Your task to perform on an android device: turn notification dots off Image 0: 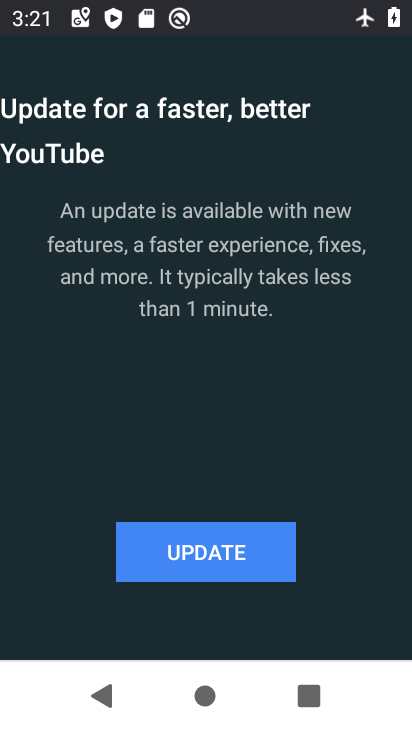
Step 0: press back button
Your task to perform on an android device: turn notification dots off Image 1: 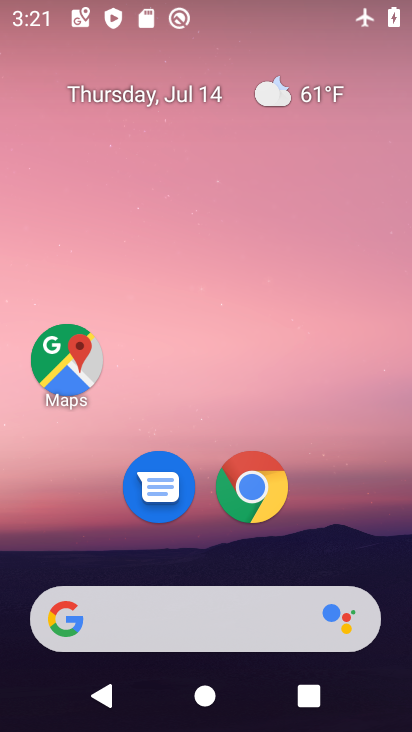
Step 1: drag from (220, 528) to (230, 36)
Your task to perform on an android device: turn notification dots off Image 2: 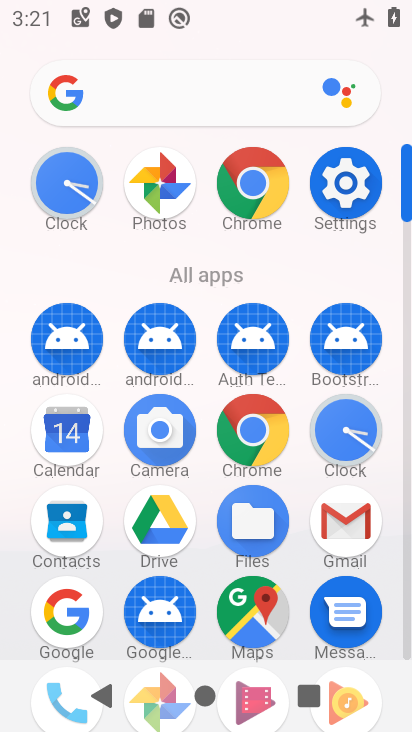
Step 2: click (349, 183)
Your task to perform on an android device: turn notification dots off Image 3: 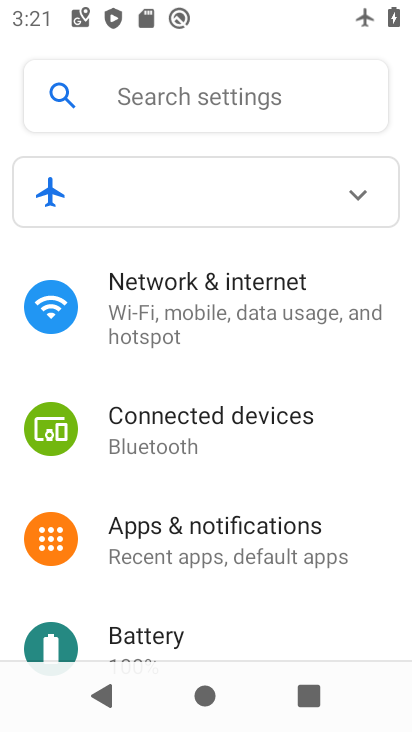
Step 3: click (172, 559)
Your task to perform on an android device: turn notification dots off Image 4: 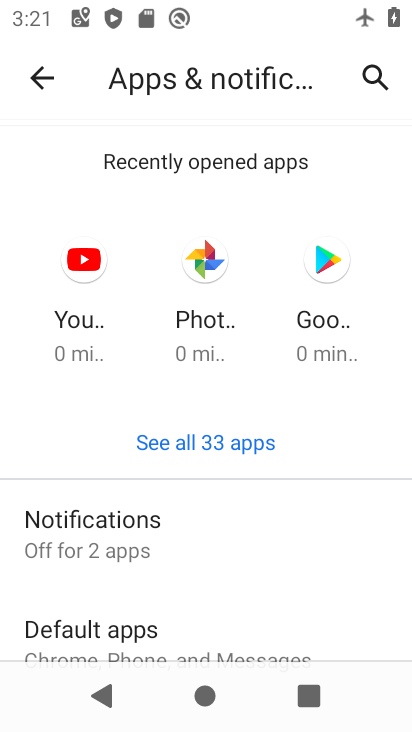
Step 4: click (141, 525)
Your task to perform on an android device: turn notification dots off Image 5: 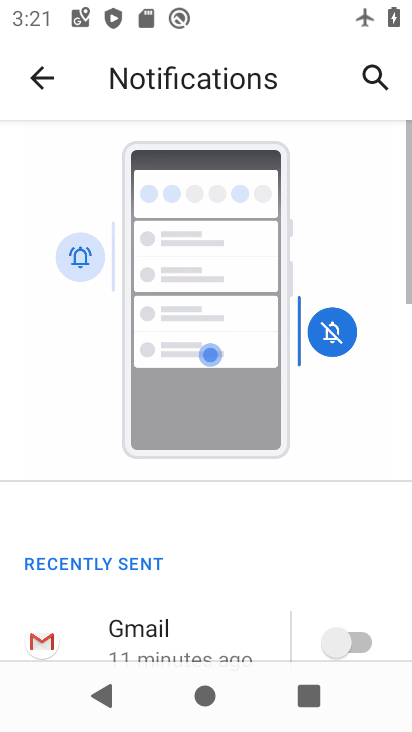
Step 5: drag from (181, 655) to (260, 101)
Your task to perform on an android device: turn notification dots off Image 6: 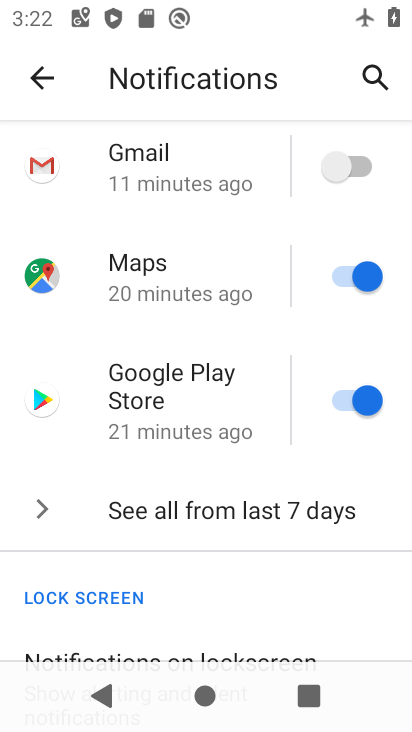
Step 6: drag from (128, 601) to (194, 130)
Your task to perform on an android device: turn notification dots off Image 7: 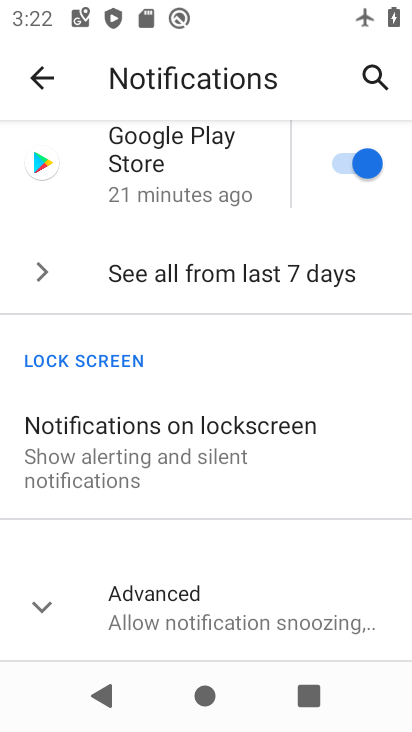
Step 7: click (212, 621)
Your task to perform on an android device: turn notification dots off Image 8: 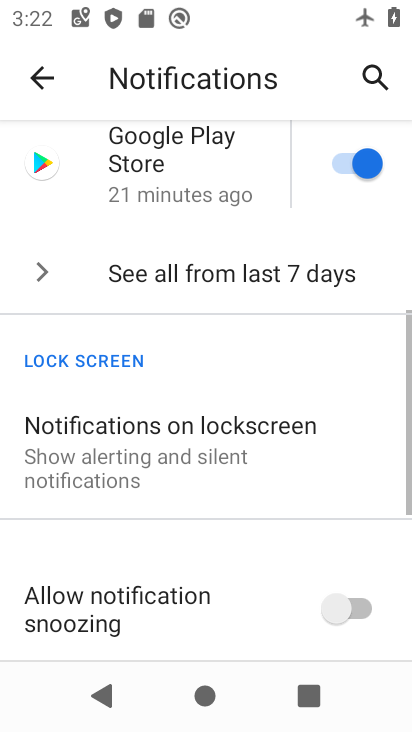
Step 8: drag from (212, 610) to (280, 98)
Your task to perform on an android device: turn notification dots off Image 9: 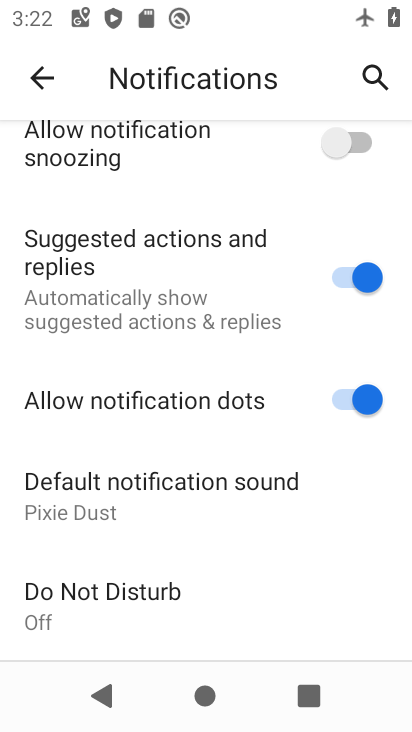
Step 9: click (373, 403)
Your task to perform on an android device: turn notification dots off Image 10: 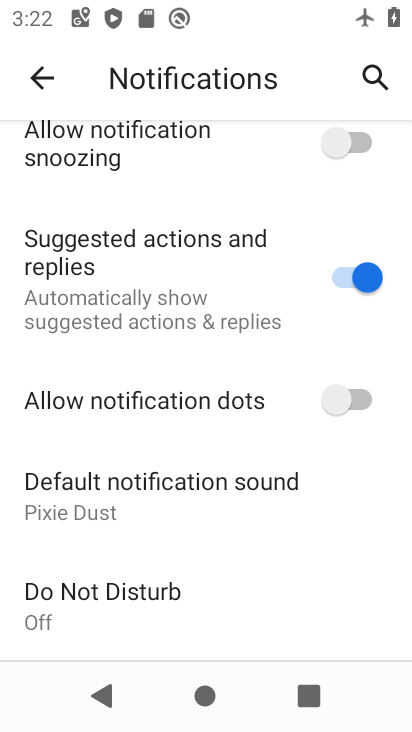
Step 10: task complete